Your task to perform on an android device: Open notification settings Image 0: 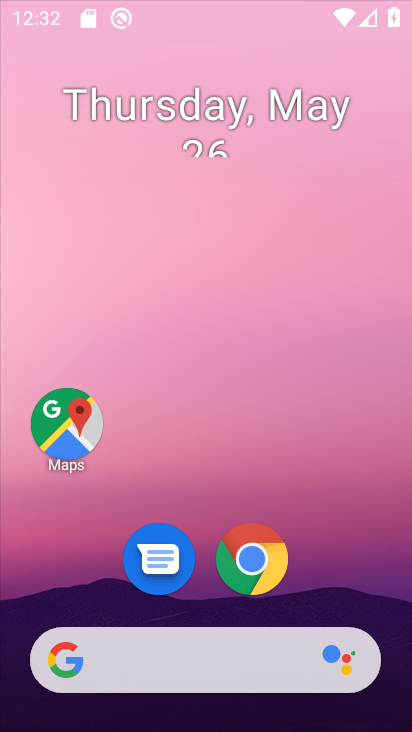
Step 0: press home button
Your task to perform on an android device: Open notification settings Image 1: 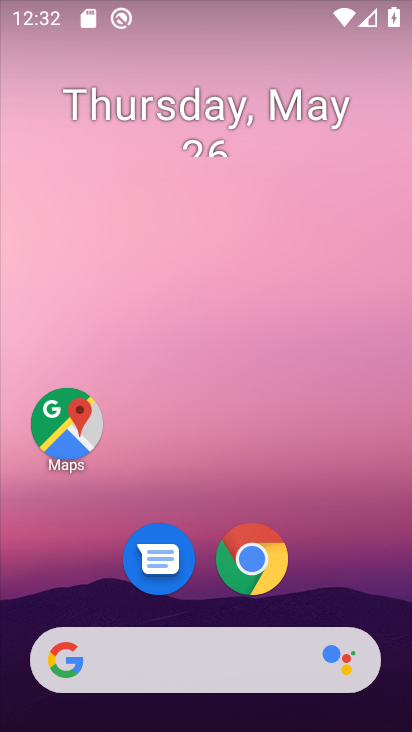
Step 1: drag from (354, 597) to (324, 55)
Your task to perform on an android device: Open notification settings Image 2: 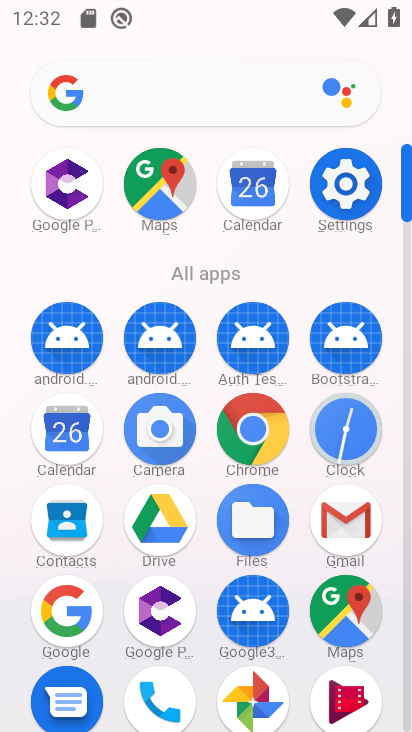
Step 2: click (335, 184)
Your task to perform on an android device: Open notification settings Image 3: 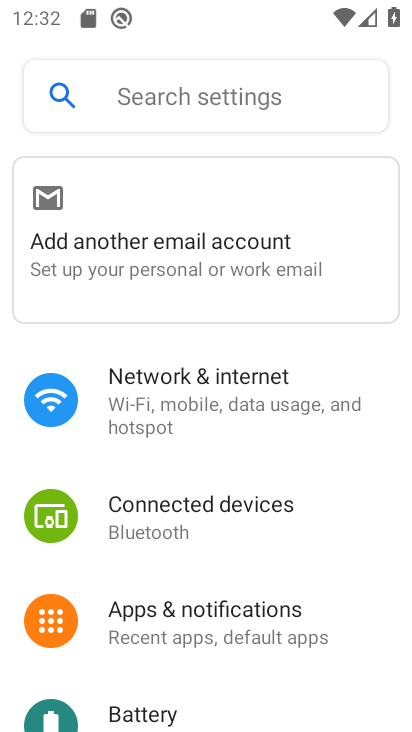
Step 3: click (200, 620)
Your task to perform on an android device: Open notification settings Image 4: 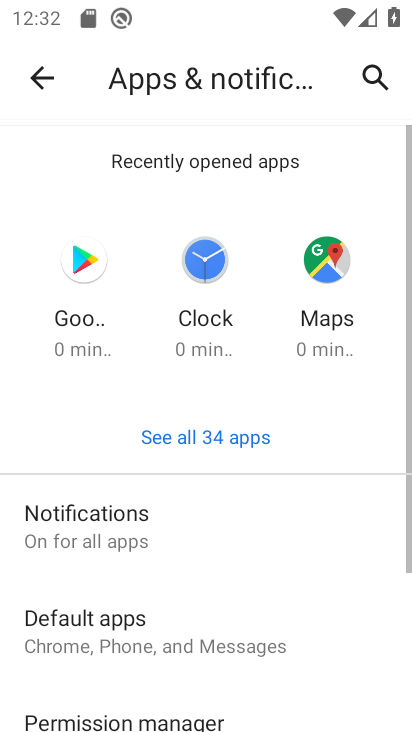
Step 4: click (103, 513)
Your task to perform on an android device: Open notification settings Image 5: 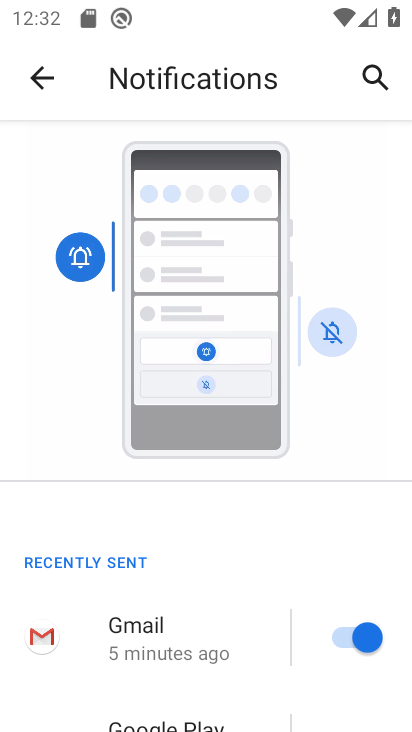
Step 5: task complete